Your task to perform on an android device: see tabs open on other devices in the chrome app Image 0: 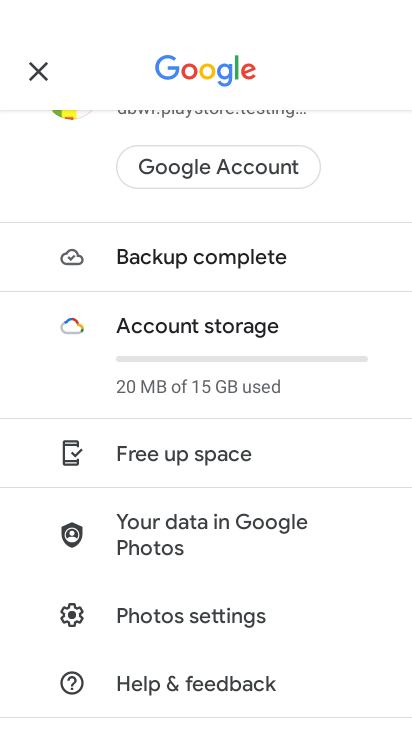
Step 0: press home button
Your task to perform on an android device: see tabs open on other devices in the chrome app Image 1: 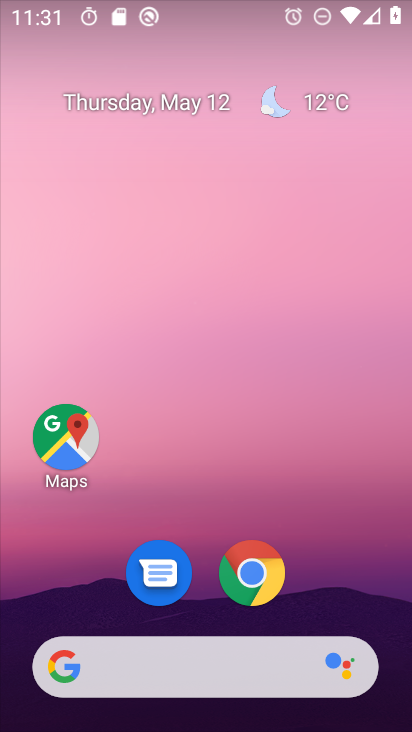
Step 1: click (248, 567)
Your task to perform on an android device: see tabs open on other devices in the chrome app Image 2: 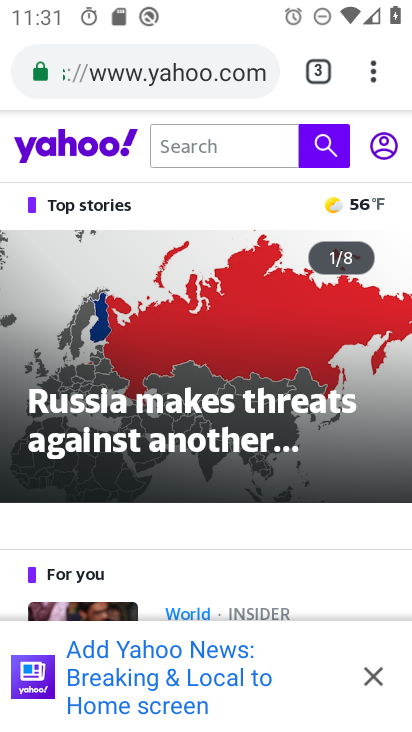
Step 2: click (370, 69)
Your task to perform on an android device: see tabs open on other devices in the chrome app Image 3: 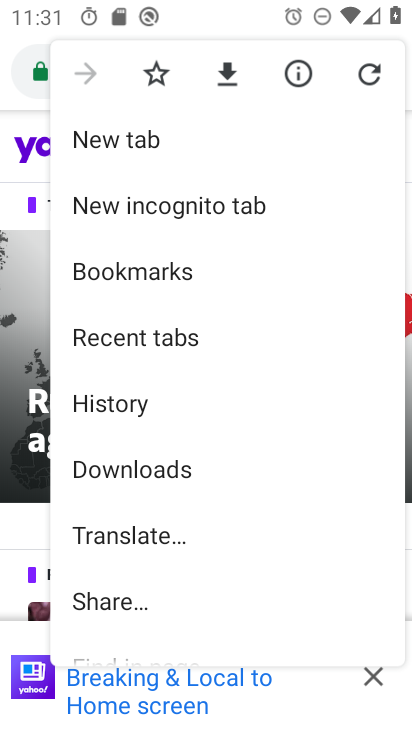
Step 3: drag from (261, 596) to (274, 316)
Your task to perform on an android device: see tabs open on other devices in the chrome app Image 4: 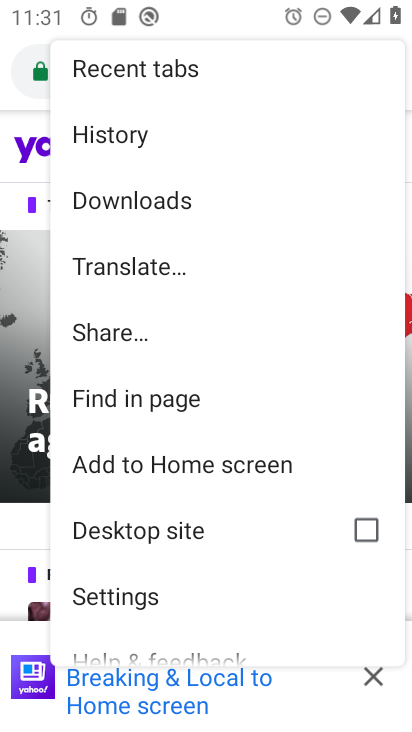
Step 4: drag from (292, 140) to (293, 584)
Your task to perform on an android device: see tabs open on other devices in the chrome app Image 5: 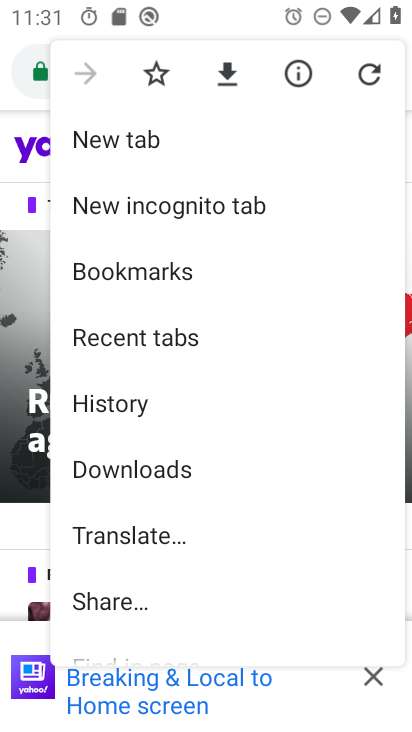
Step 5: click (114, 336)
Your task to perform on an android device: see tabs open on other devices in the chrome app Image 6: 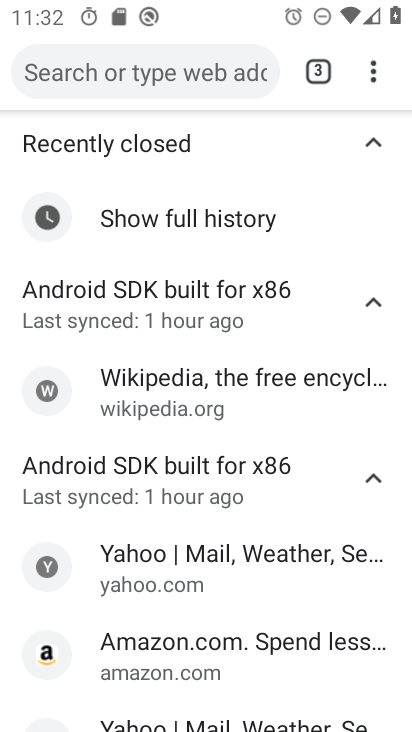
Step 6: task complete